Your task to perform on an android device: uninstall "Lyft - Rideshare, Bikes, Scooters & Transit" Image 0: 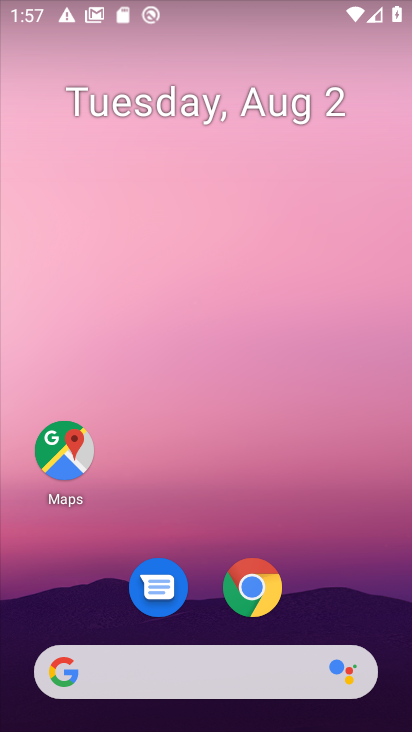
Step 0: drag from (197, 553) to (232, 175)
Your task to perform on an android device: uninstall "Lyft - Rideshare, Bikes, Scooters & Transit" Image 1: 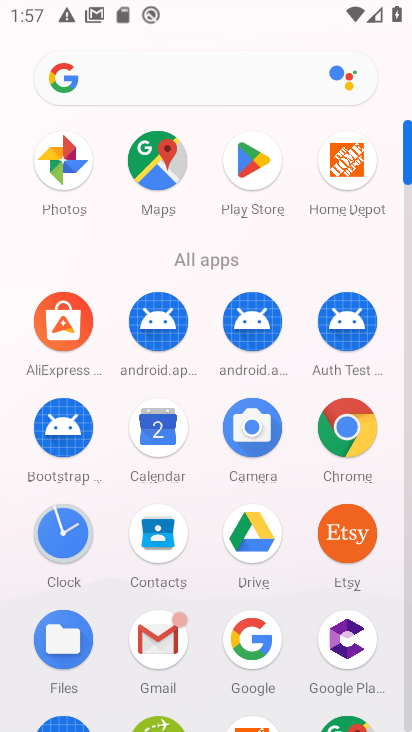
Step 1: click (249, 170)
Your task to perform on an android device: uninstall "Lyft - Rideshare, Bikes, Scooters & Transit" Image 2: 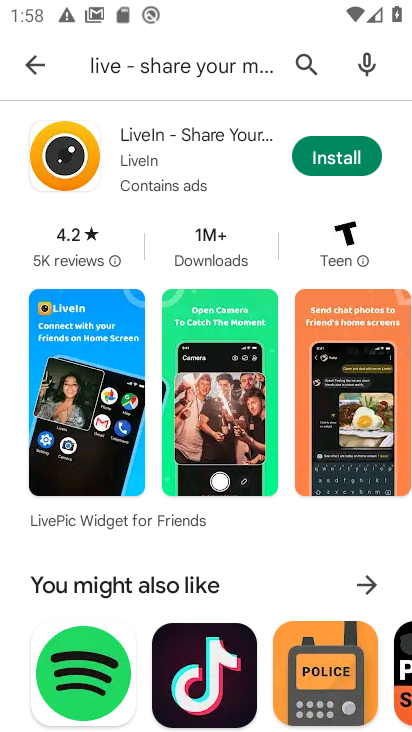
Step 2: click (304, 64)
Your task to perform on an android device: uninstall "Lyft - Rideshare, Bikes, Scooters & Transit" Image 3: 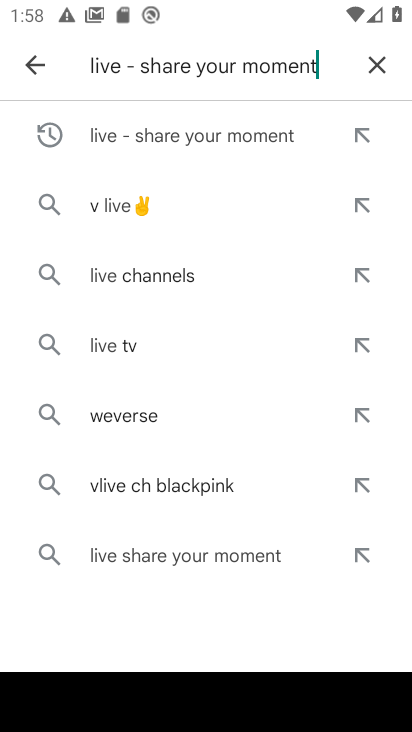
Step 3: click (368, 64)
Your task to perform on an android device: uninstall "Lyft - Rideshare, Bikes, Scooters & Transit" Image 4: 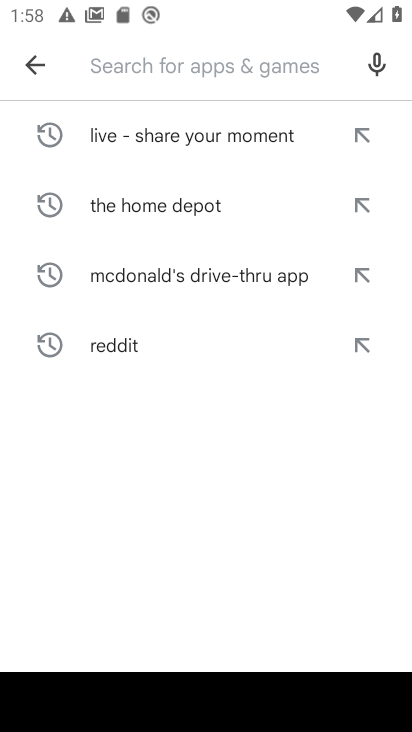
Step 4: type "Lyft - Rideshare, Bikes, Scooters & Transit"
Your task to perform on an android device: uninstall "Lyft - Rideshare, Bikes, Scooters & Transit" Image 5: 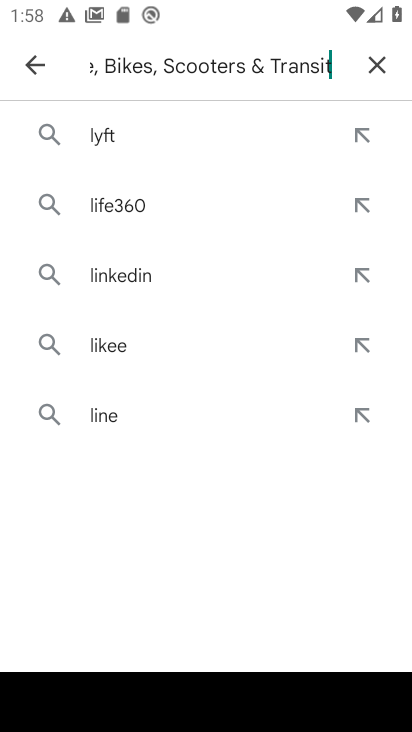
Step 5: type ""
Your task to perform on an android device: uninstall "Lyft - Rideshare, Bikes, Scooters & Transit" Image 6: 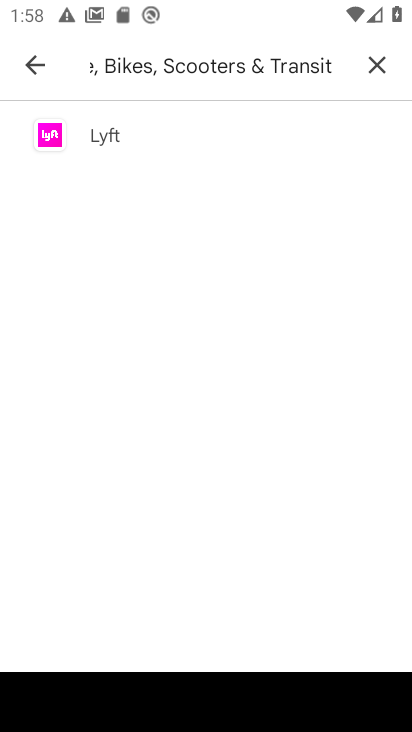
Step 6: click (131, 149)
Your task to perform on an android device: uninstall "Lyft - Rideshare, Bikes, Scooters & Transit" Image 7: 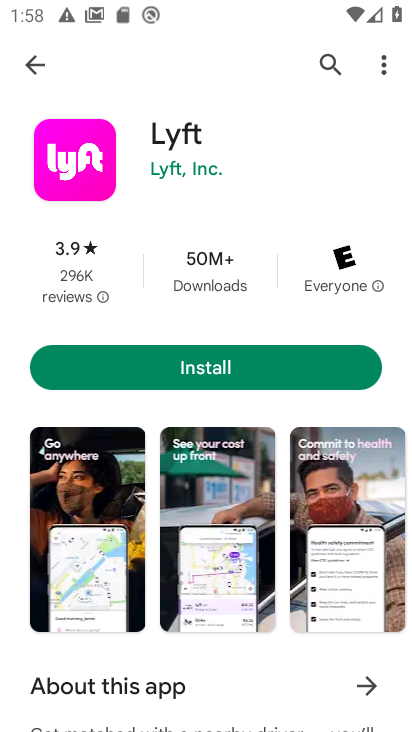
Step 7: task complete